Your task to perform on an android device: check storage Image 0: 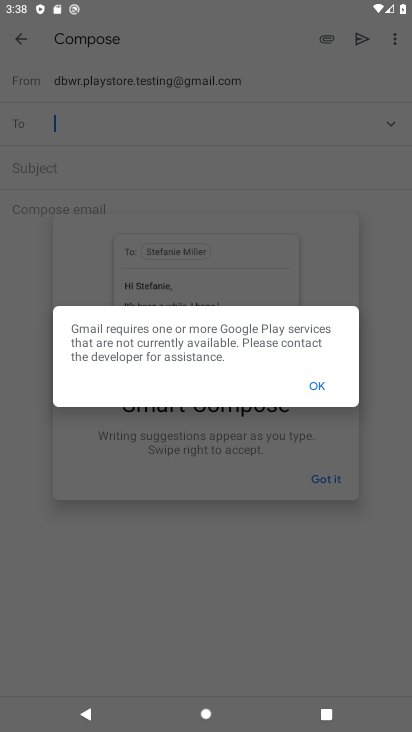
Step 0: press home button
Your task to perform on an android device: check storage Image 1: 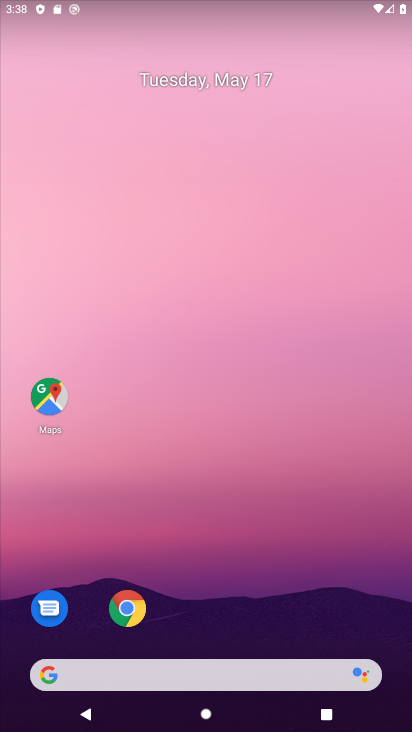
Step 1: drag from (155, 608) to (140, 267)
Your task to perform on an android device: check storage Image 2: 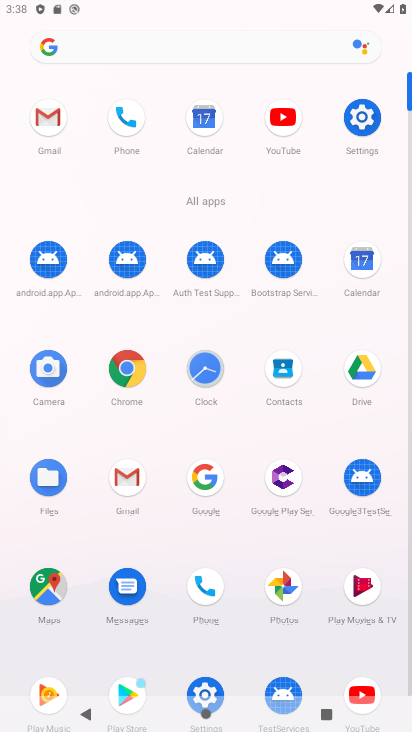
Step 2: click (354, 125)
Your task to perform on an android device: check storage Image 3: 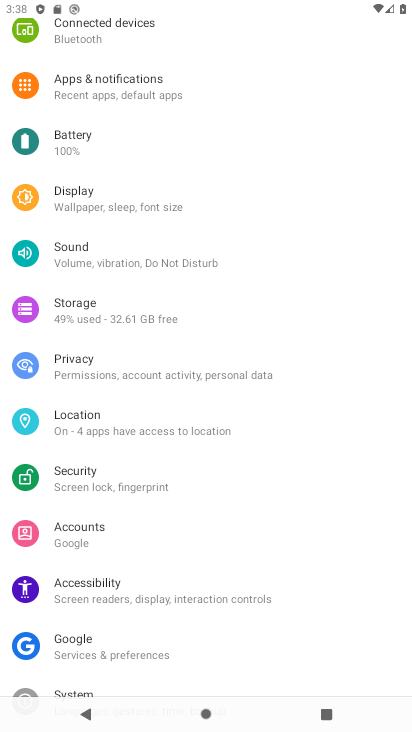
Step 3: drag from (111, 661) to (151, 333)
Your task to perform on an android device: check storage Image 4: 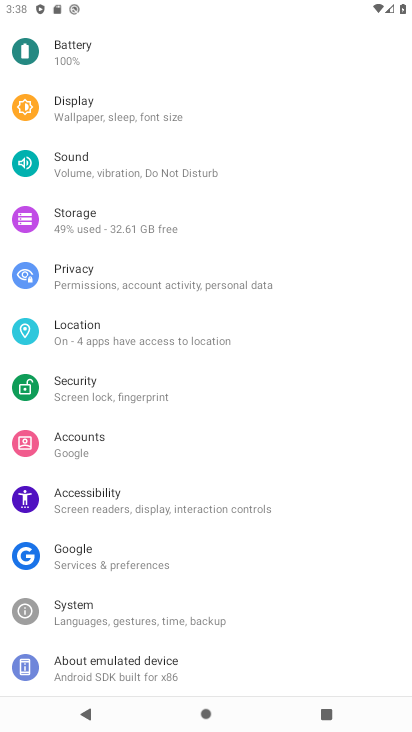
Step 4: click (75, 210)
Your task to perform on an android device: check storage Image 5: 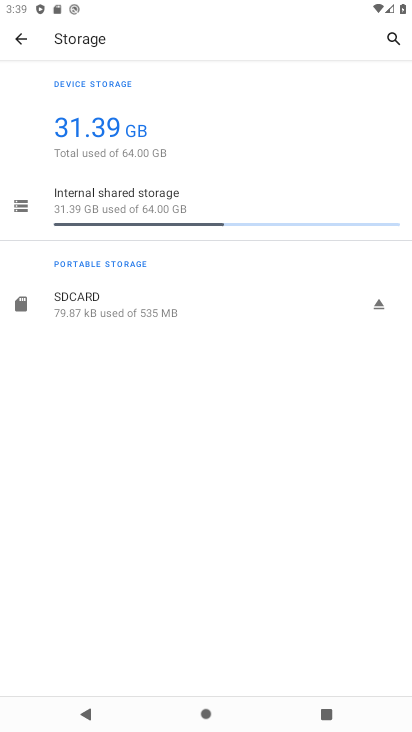
Step 5: task complete